Your task to perform on an android device: Go to Yahoo.com Image 0: 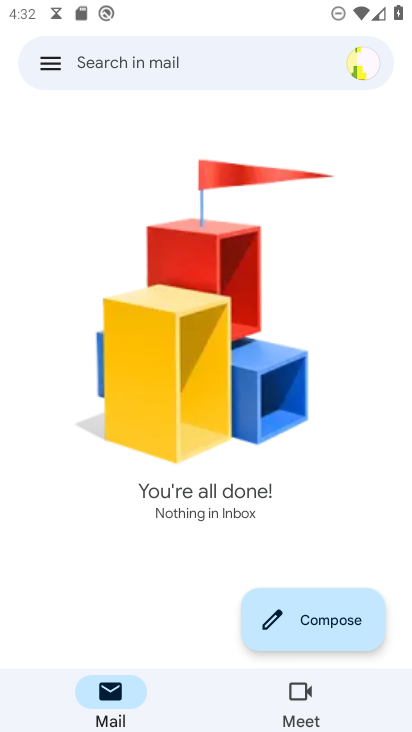
Step 0: press home button
Your task to perform on an android device: Go to Yahoo.com Image 1: 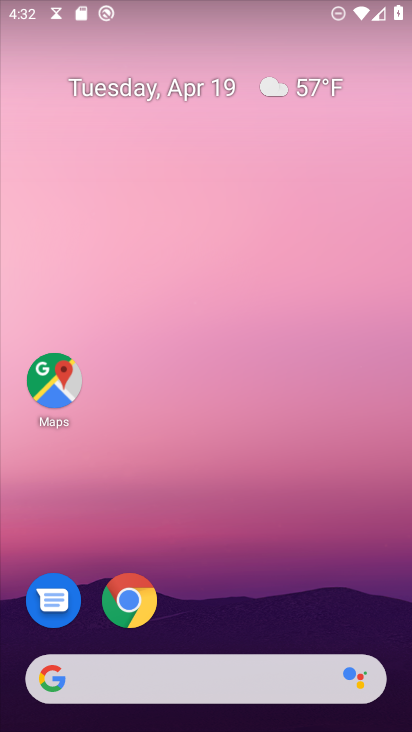
Step 1: click (136, 592)
Your task to perform on an android device: Go to Yahoo.com Image 2: 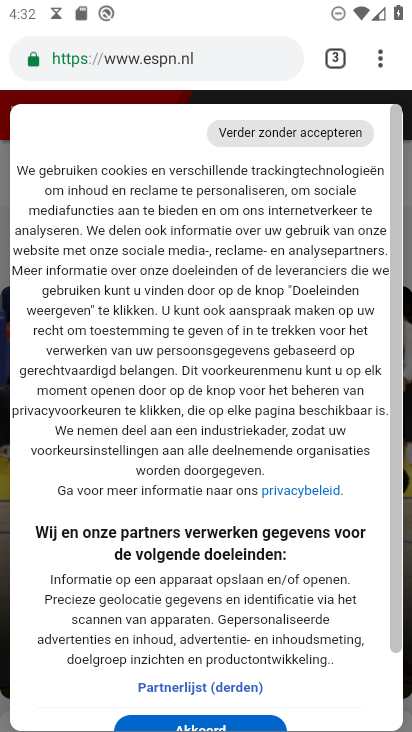
Step 2: click (131, 63)
Your task to perform on an android device: Go to Yahoo.com Image 3: 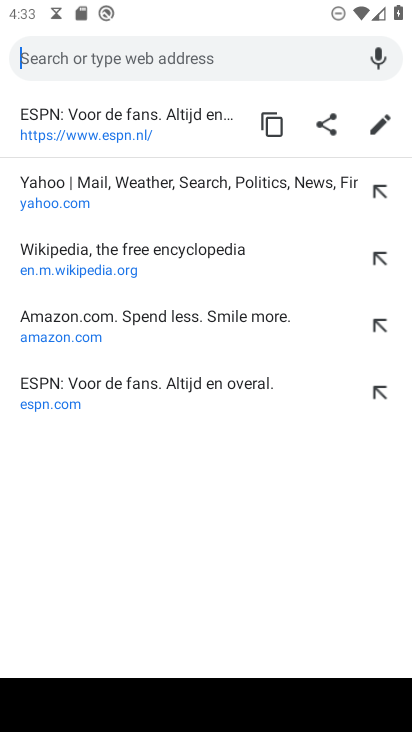
Step 3: click (100, 193)
Your task to perform on an android device: Go to Yahoo.com Image 4: 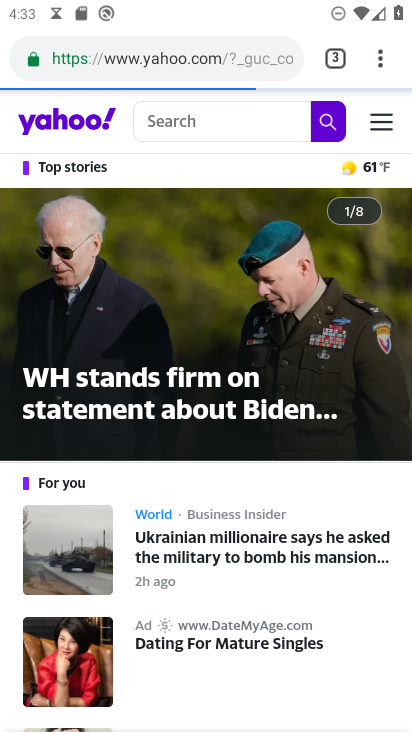
Step 4: task complete